Your task to perform on an android device: Open accessibility settings Image 0: 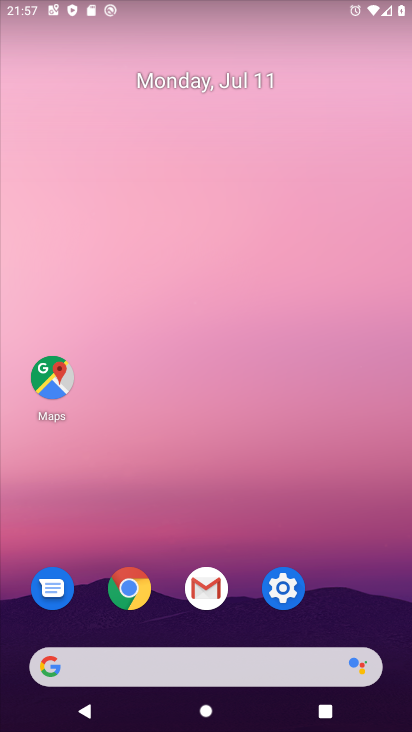
Step 0: click (280, 602)
Your task to perform on an android device: Open accessibility settings Image 1: 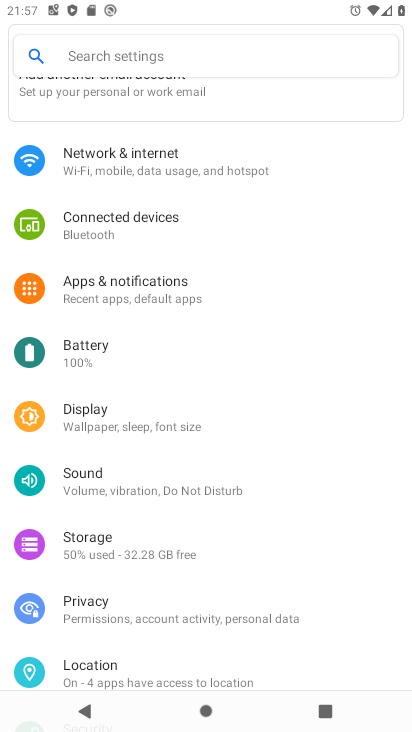
Step 1: click (103, 57)
Your task to perform on an android device: Open accessibility settings Image 2: 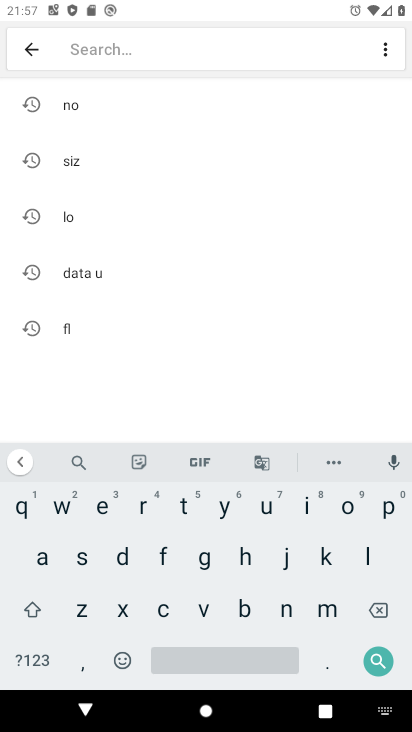
Step 2: click (41, 559)
Your task to perform on an android device: Open accessibility settings Image 3: 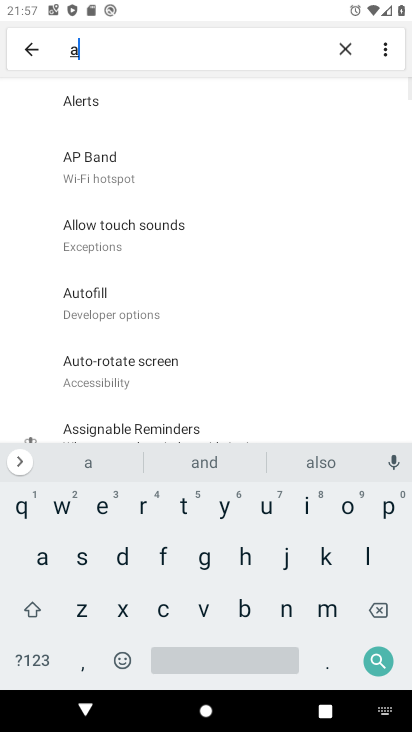
Step 3: click (165, 610)
Your task to perform on an android device: Open accessibility settings Image 4: 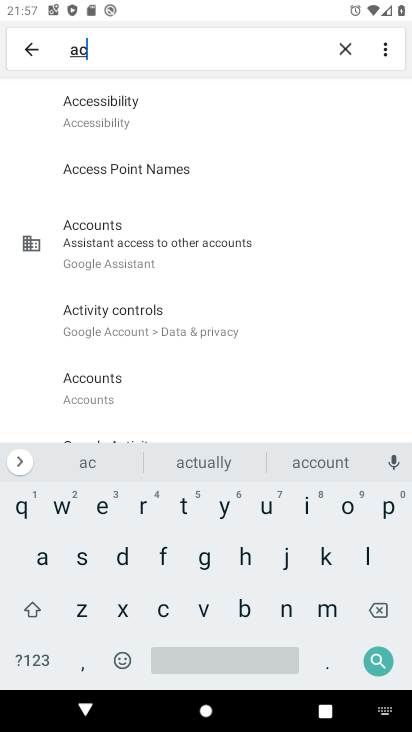
Step 4: click (169, 119)
Your task to perform on an android device: Open accessibility settings Image 5: 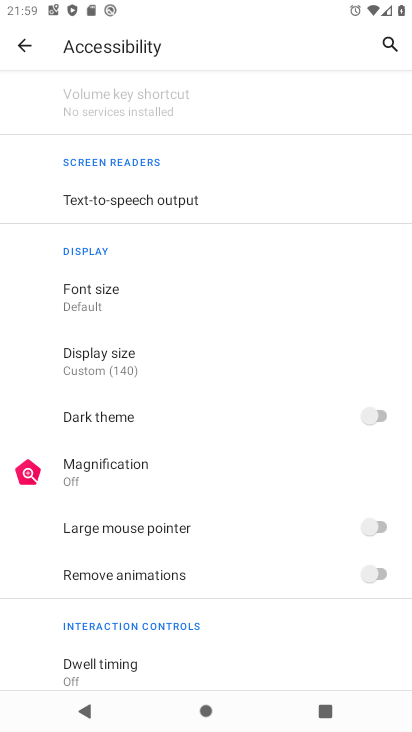
Step 5: task complete